Your task to perform on an android device: turn on wifi Image 0: 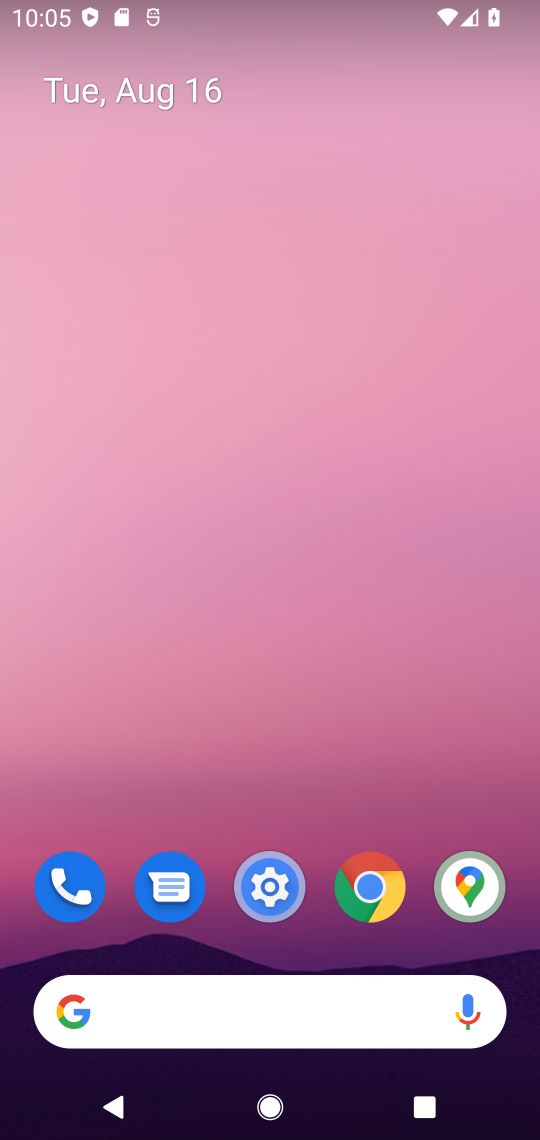
Step 0: press home button
Your task to perform on an android device: turn on wifi Image 1: 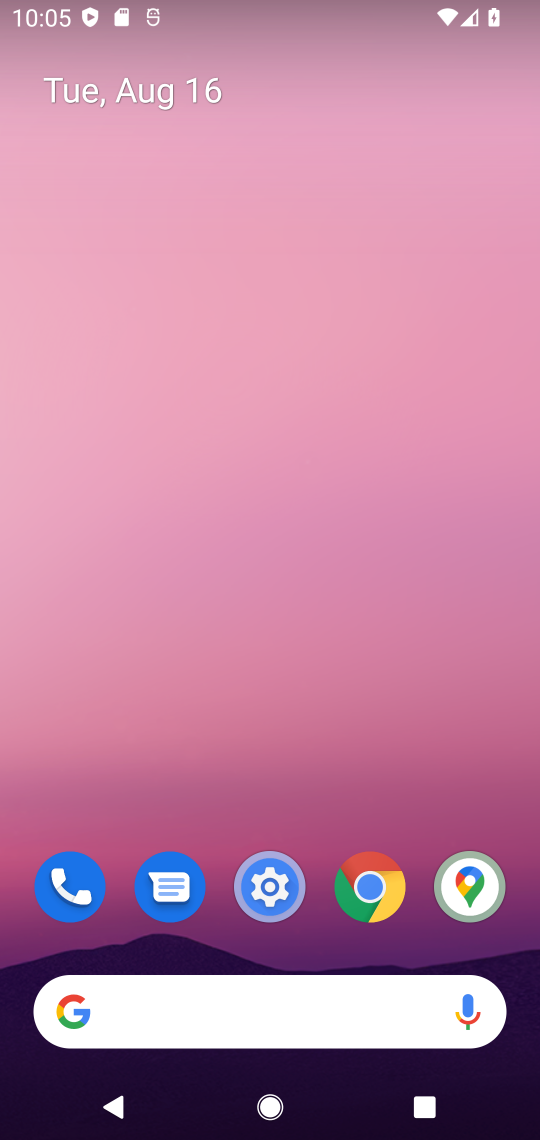
Step 1: drag from (408, 783) to (420, 176)
Your task to perform on an android device: turn on wifi Image 2: 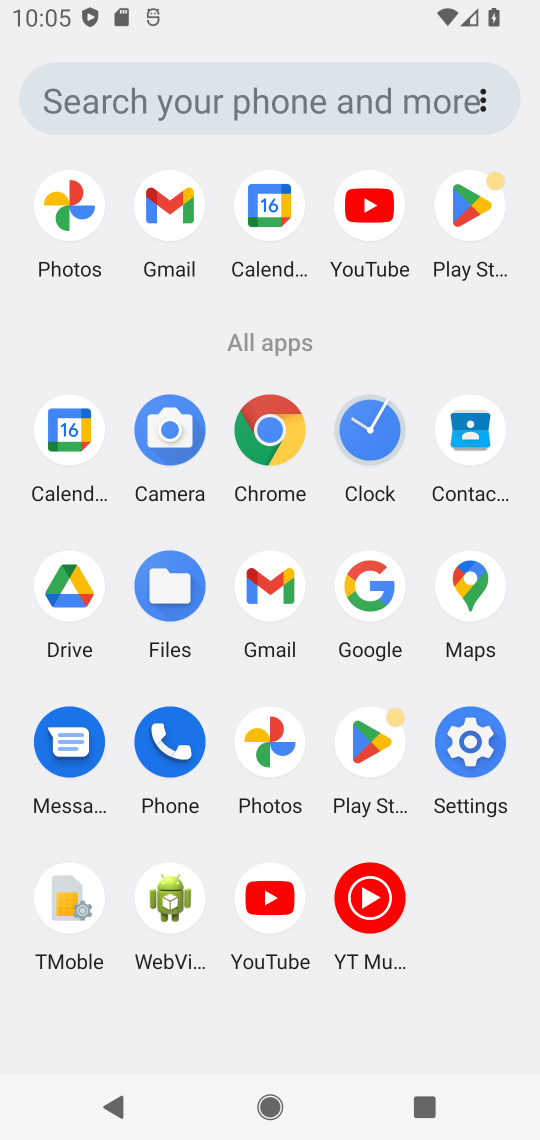
Step 2: click (465, 741)
Your task to perform on an android device: turn on wifi Image 3: 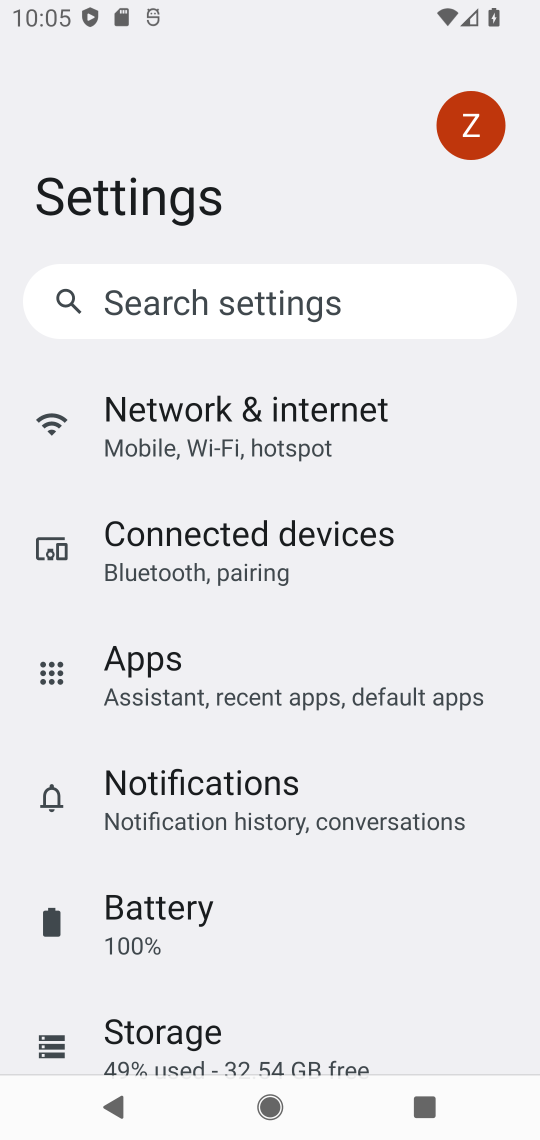
Step 3: click (301, 418)
Your task to perform on an android device: turn on wifi Image 4: 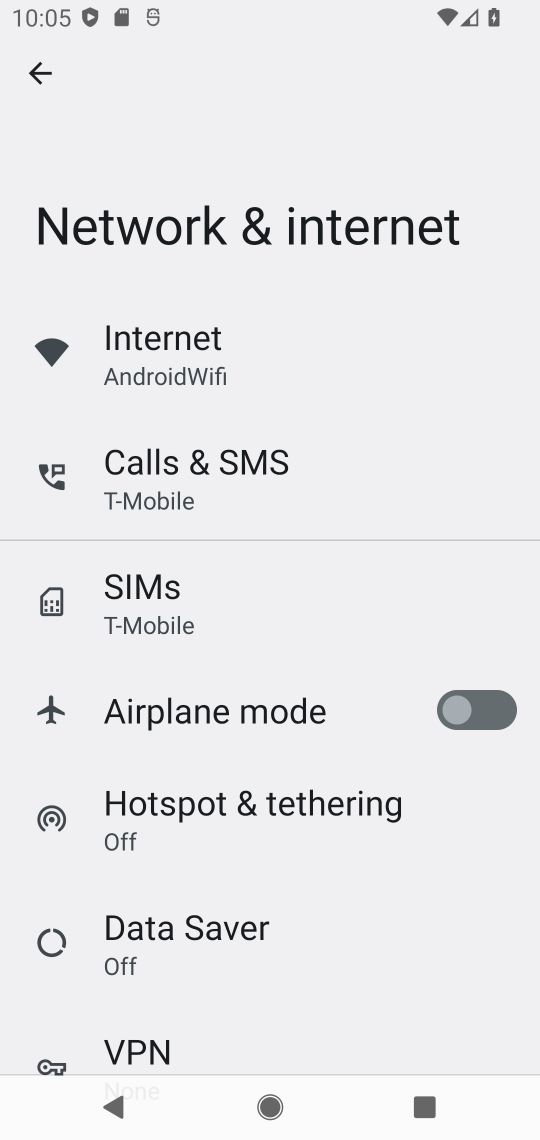
Step 4: click (244, 360)
Your task to perform on an android device: turn on wifi Image 5: 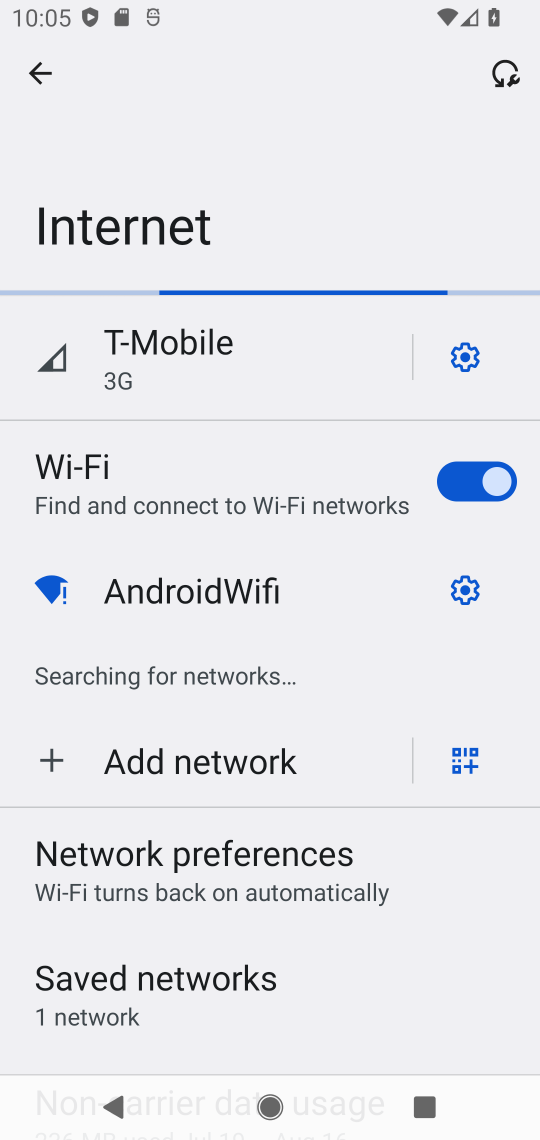
Step 5: task complete